Your task to perform on an android device: What is the news today? Image 0: 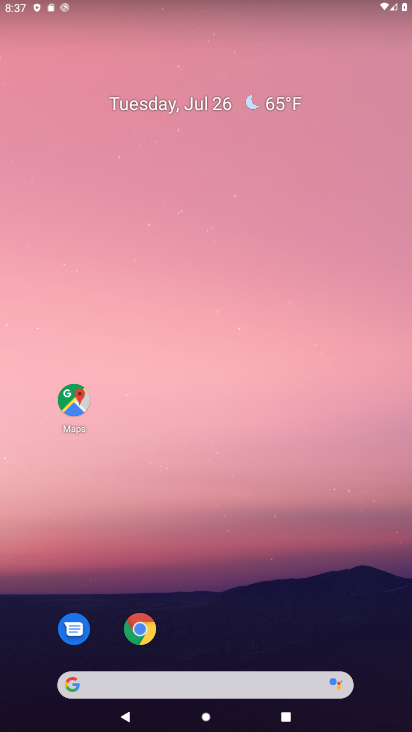
Step 0: click (137, 678)
Your task to perform on an android device: What is the news today? Image 1: 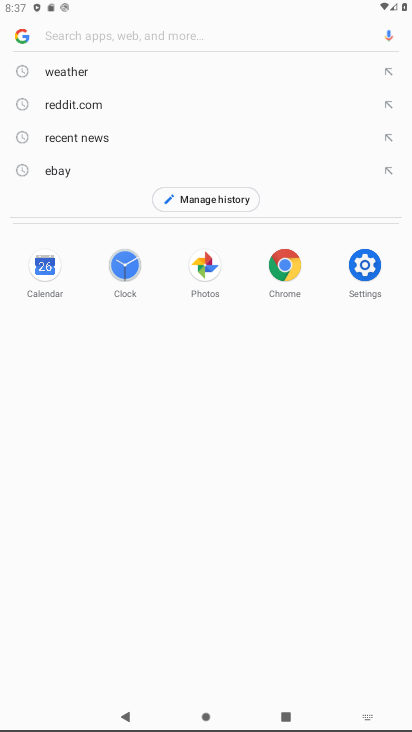
Step 1: click (137, 678)
Your task to perform on an android device: What is the news today? Image 2: 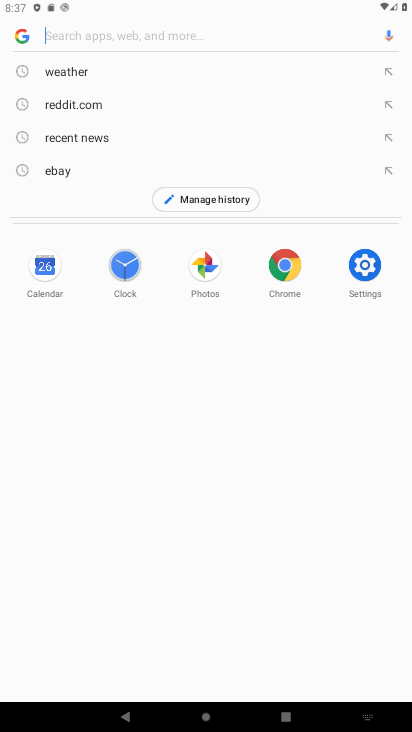
Step 2: type "what is the news today"
Your task to perform on an android device: What is the news today? Image 3: 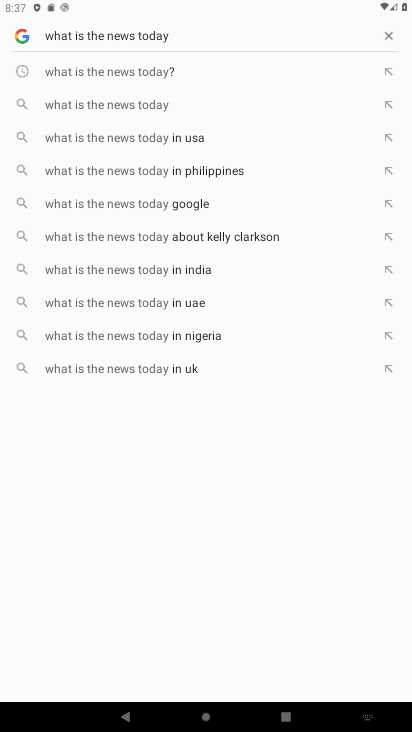
Step 3: click (200, 65)
Your task to perform on an android device: What is the news today? Image 4: 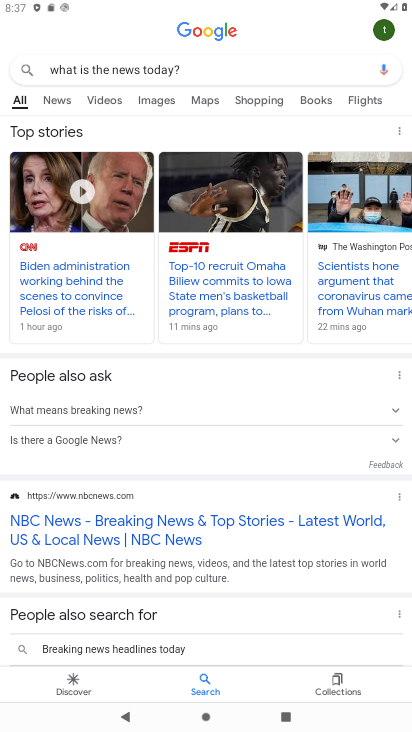
Step 4: click (59, 104)
Your task to perform on an android device: What is the news today? Image 5: 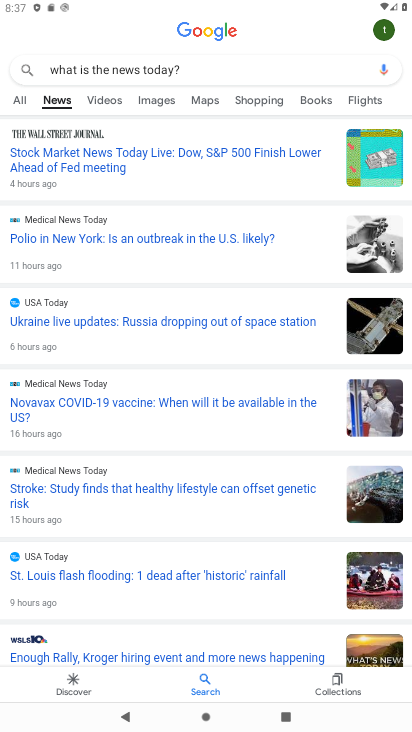
Step 5: task complete